Your task to perform on an android device: Go to Google Image 0: 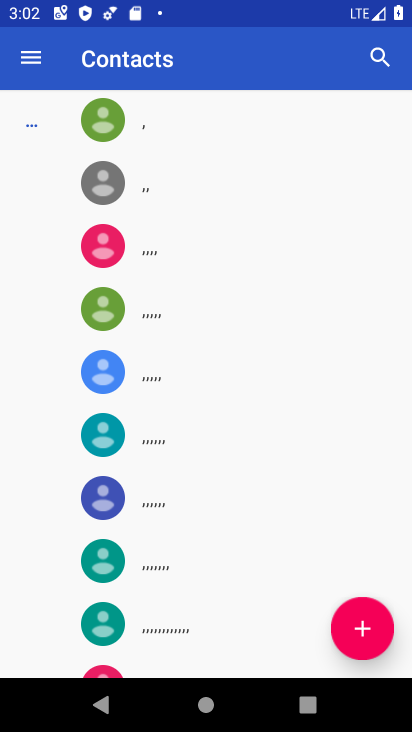
Step 0: press home button
Your task to perform on an android device: Go to Google Image 1: 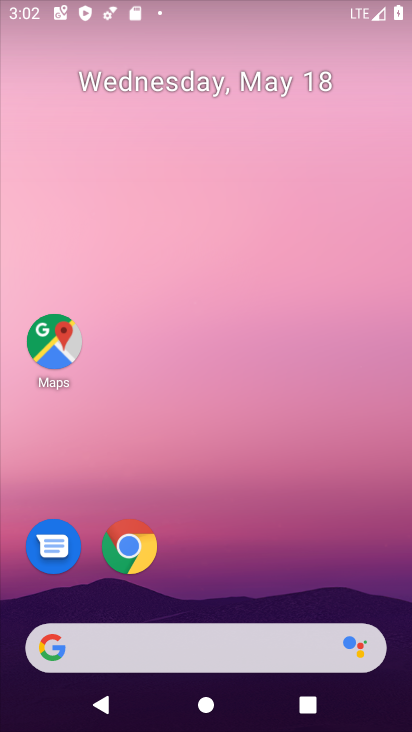
Step 1: drag from (231, 726) to (235, 148)
Your task to perform on an android device: Go to Google Image 2: 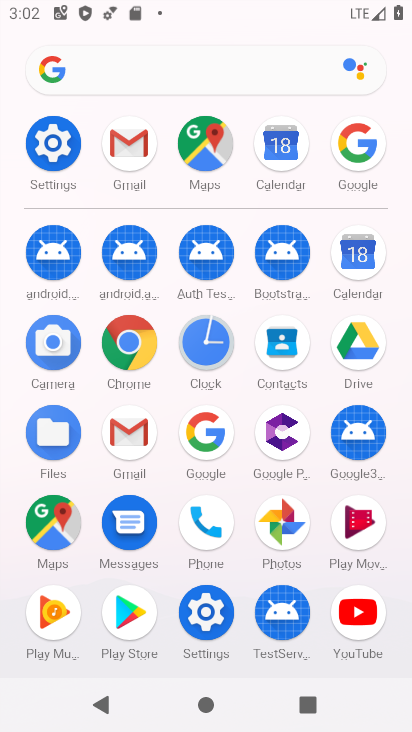
Step 2: click (215, 428)
Your task to perform on an android device: Go to Google Image 3: 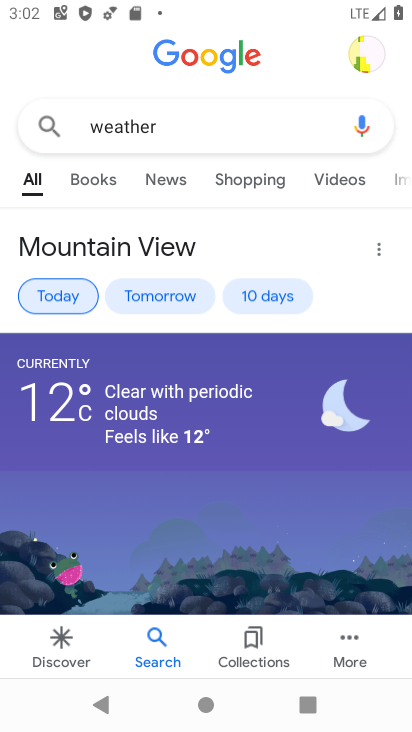
Step 3: task complete